Your task to perform on an android device: empty trash in google photos Image 0: 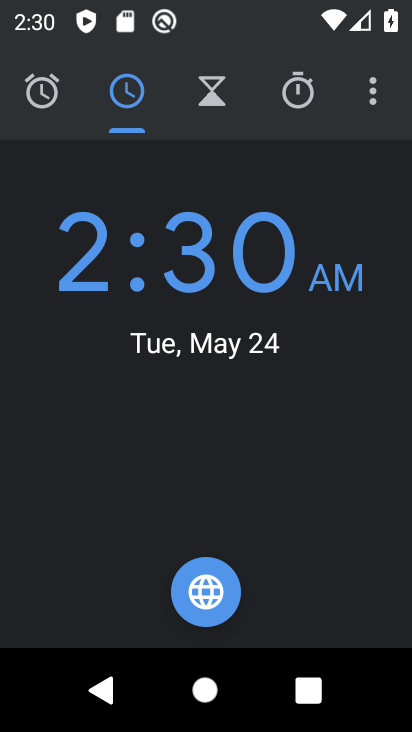
Step 0: press home button
Your task to perform on an android device: empty trash in google photos Image 1: 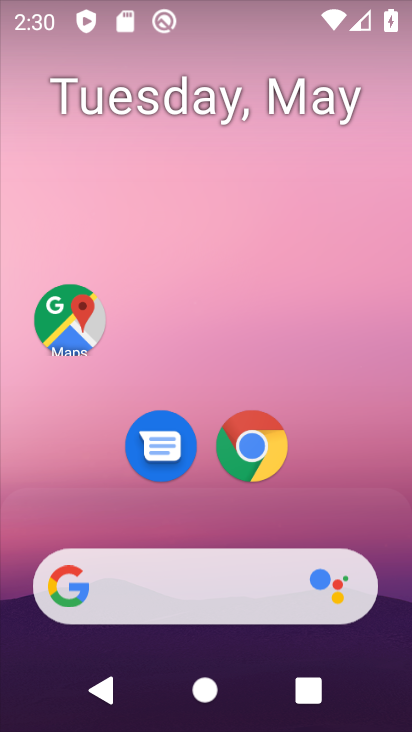
Step 1: drag from (256, 558) to (306, 123)
Your task to perform on an android device: empty trash in google photos Image 2: 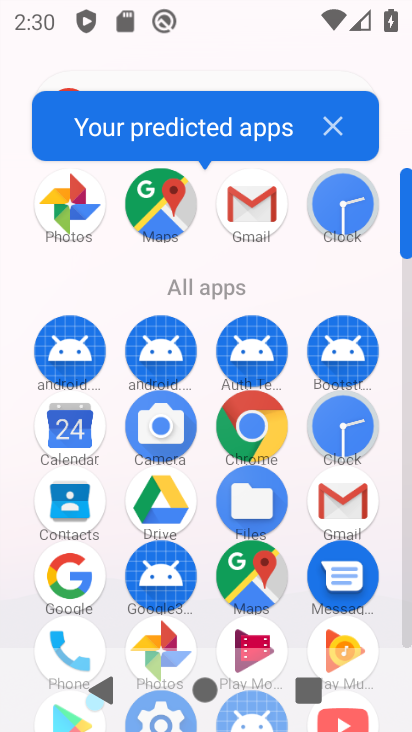
Step 2: click (69, 201)
Your task to perform on an android device: empty trash in google photos Image 3: 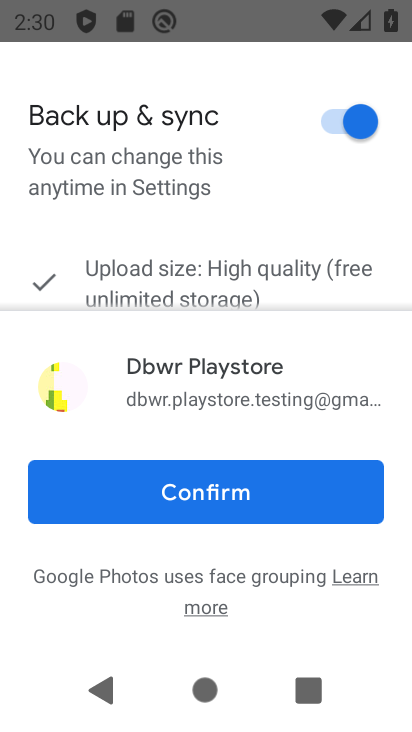
Step 3: click (143, 483)
Your task to perform on an android device: empty trash in google photos Image 4: 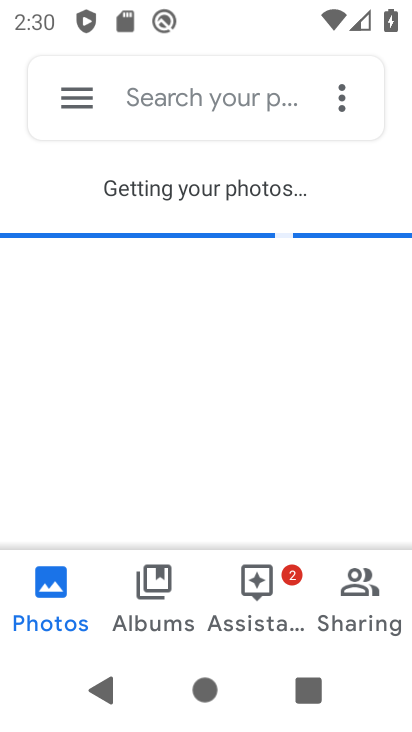
Step 4: click (70, 89)
Your task to perform on an android device: empty trash in google photos Image 5: 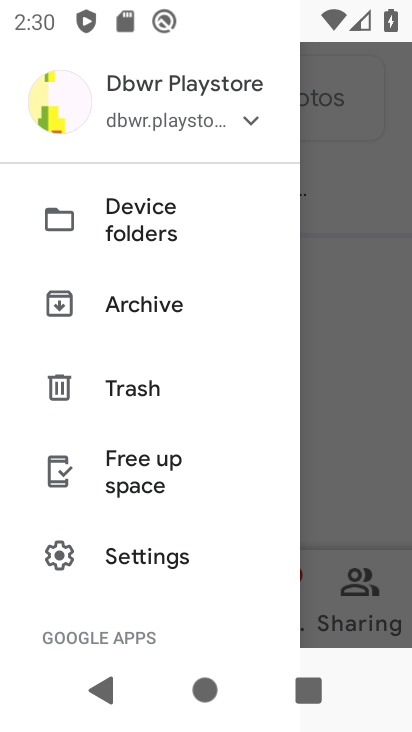
Step 5: click (125, 389)
Your task to perform on an android device: empty trash in google photos Image 6: 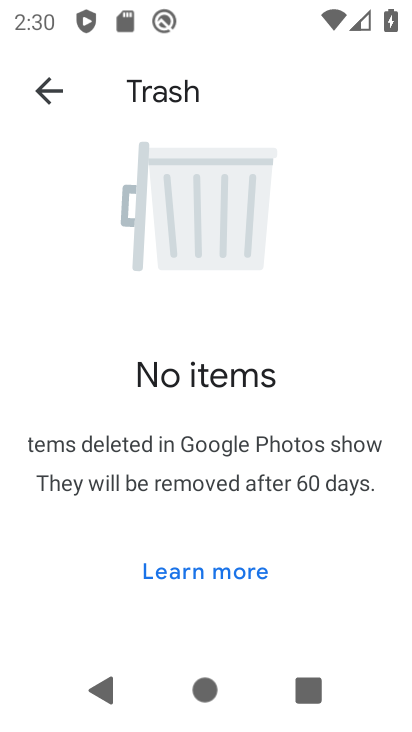
Step 6: task complete